Your task to perform on an android device: empty trash in the gmail app Image 0: 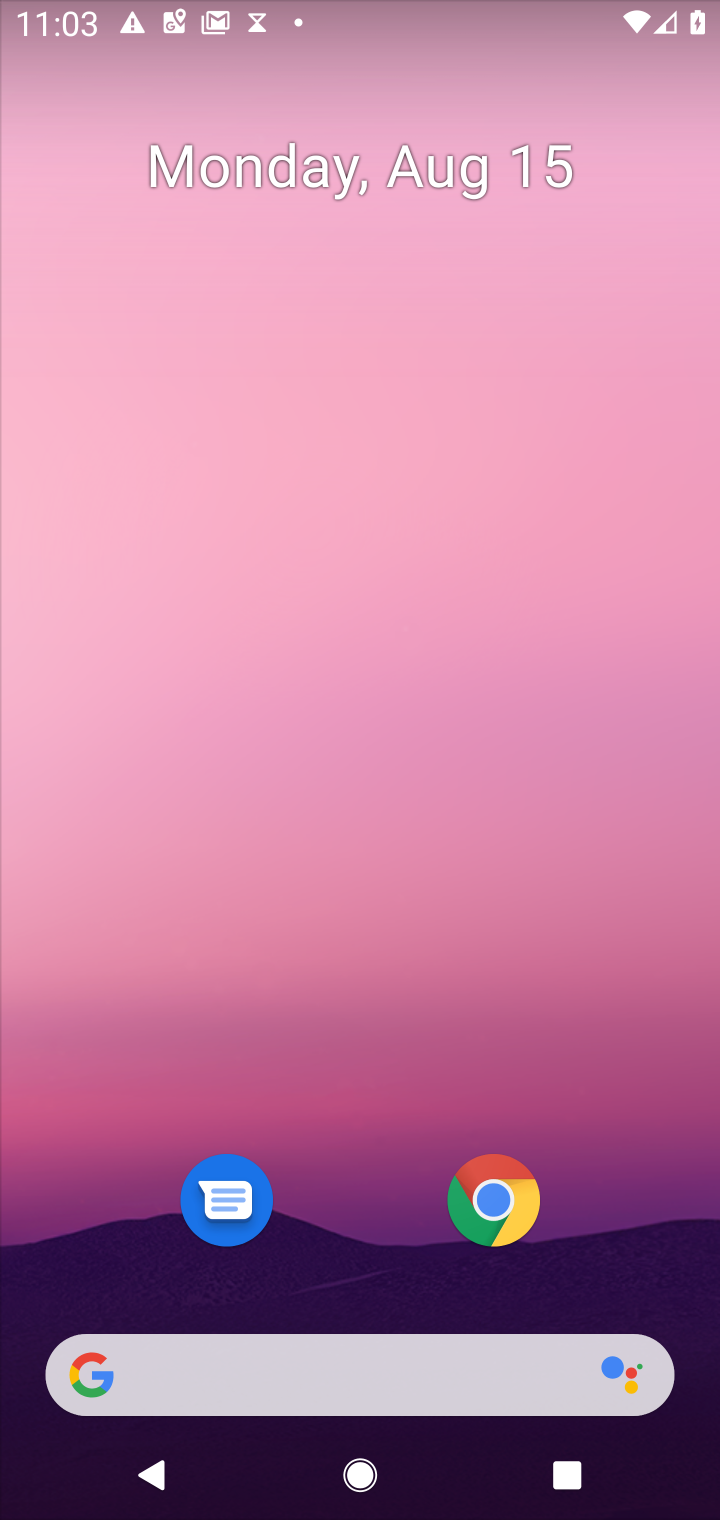
Step 0: drag from (346, 1138) to (352, 289)
Your task to perform on an android device: empty trash in the gmail app Image 1: 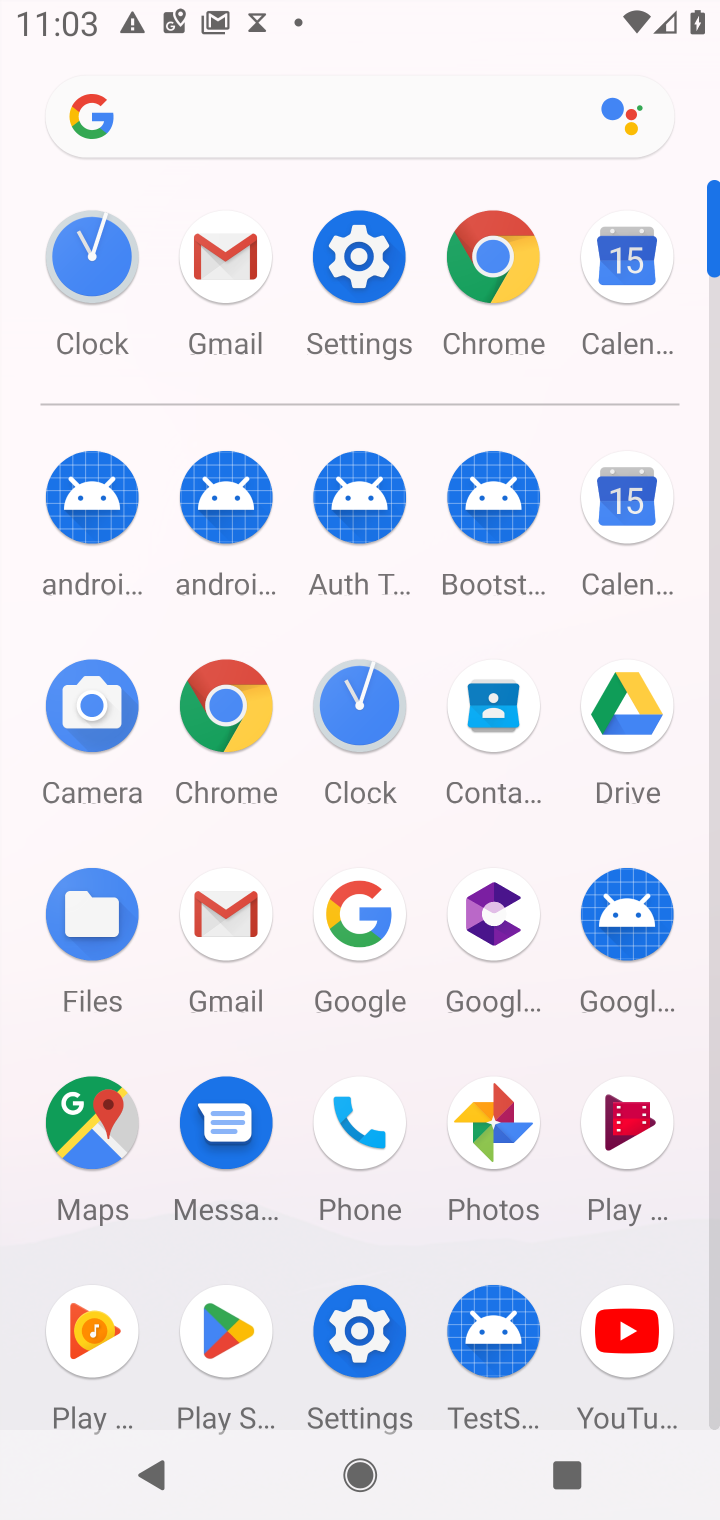
Step 1: click (227, 274)
Your task to perform on an android device: empty trash in the gmail app Image 2: 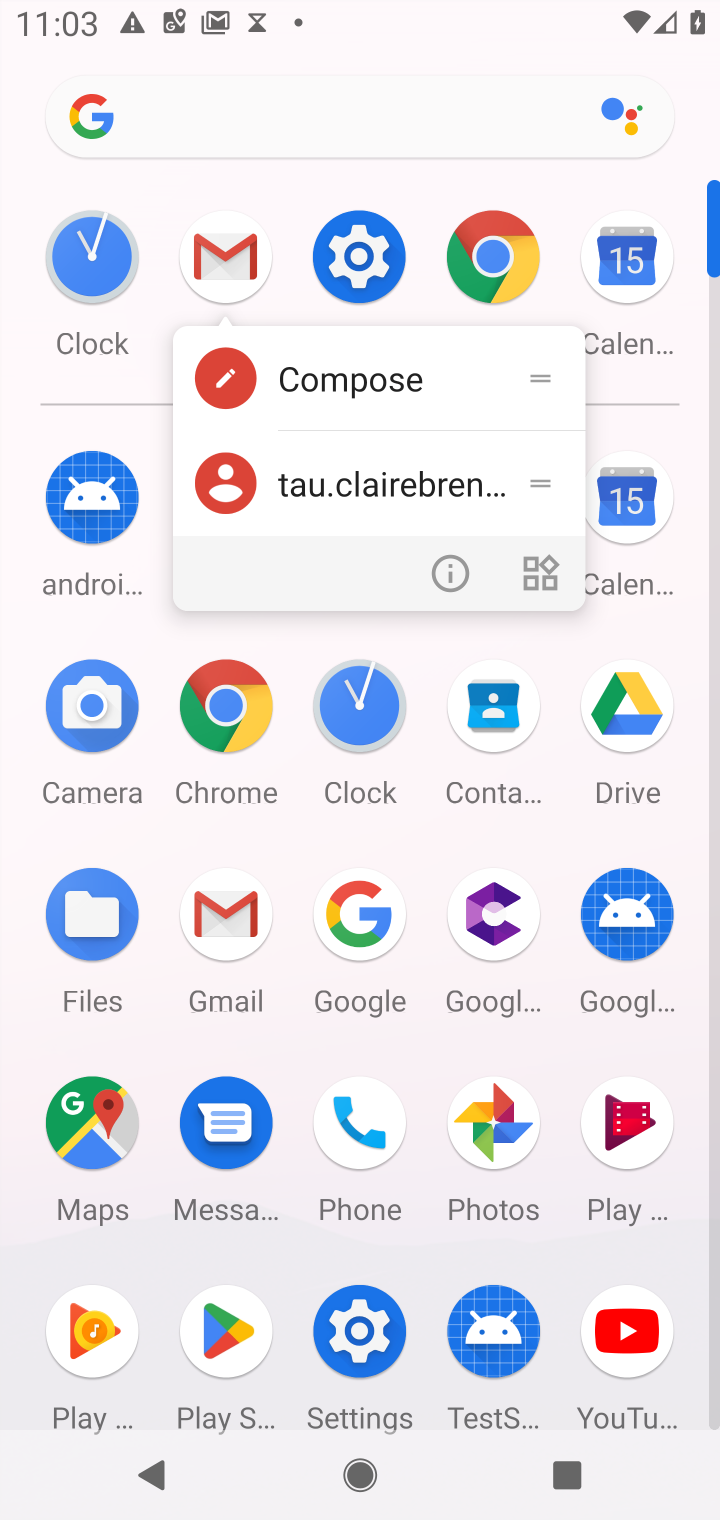
Step 2: click (224, 235)
Your task to perform on an android device: empty trash in the gmail app Image 3: 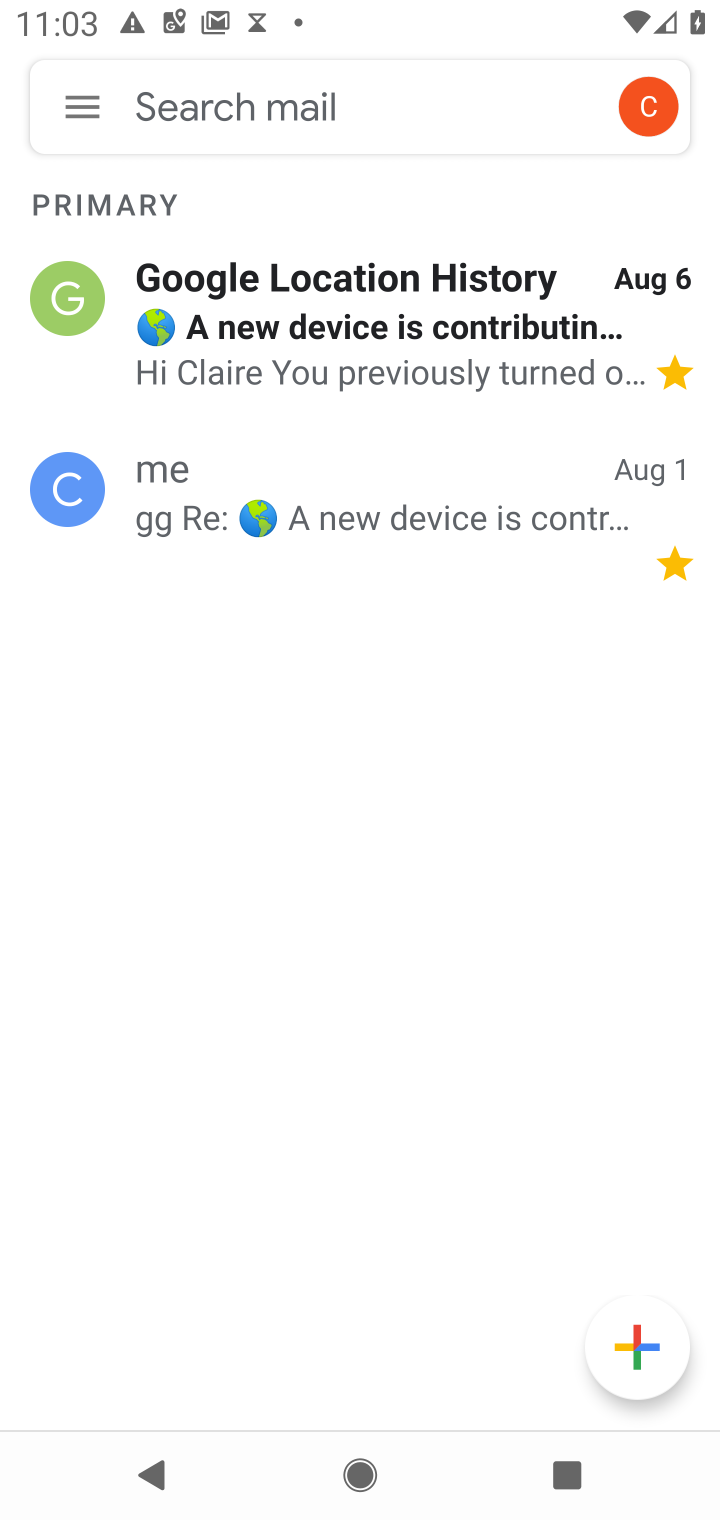
Step 3: click (131, 109)
Your task to perform on an android device: empty trash in the gmail app Image 4: 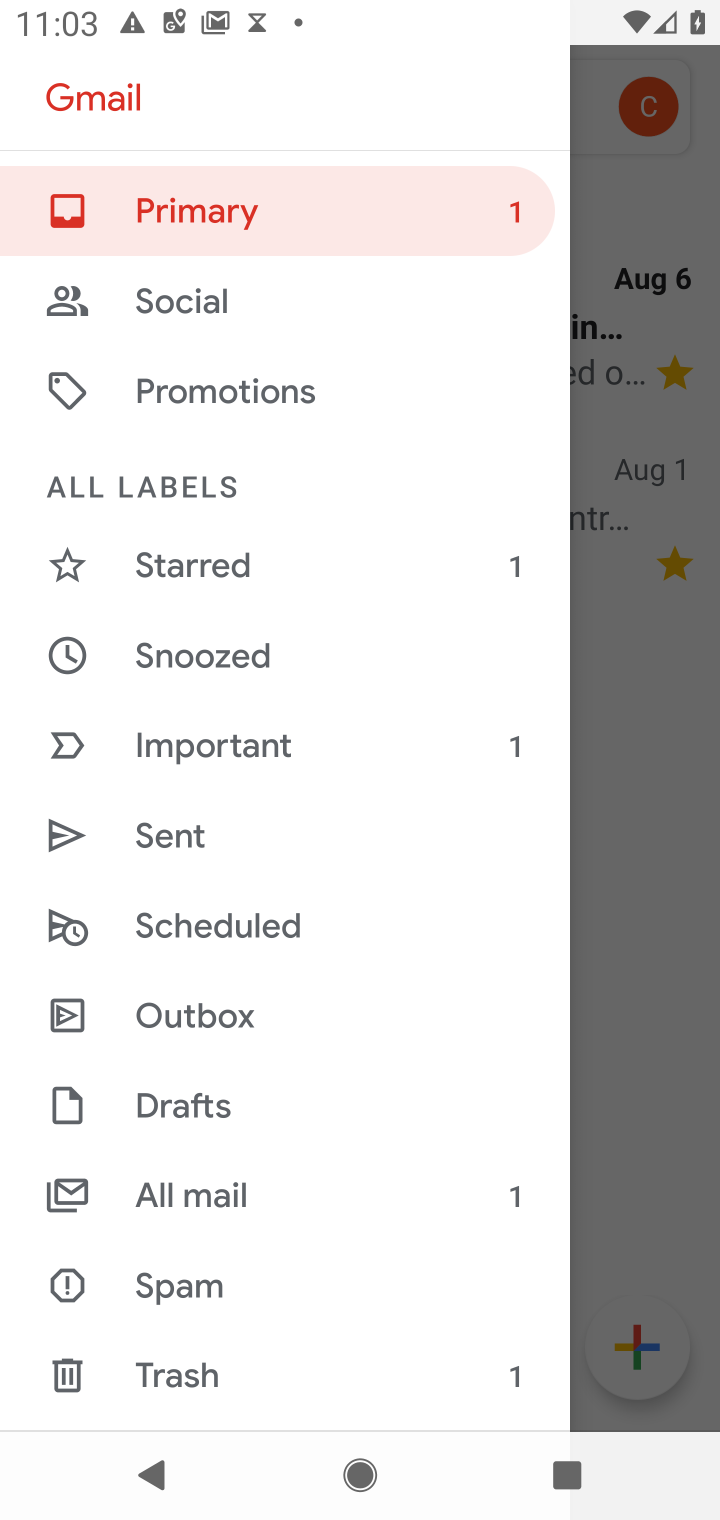
Step 4: drag from (271, 1104) to (285, 431)
Your task to perform on an android device: empty trash in the gmail app Image 5: 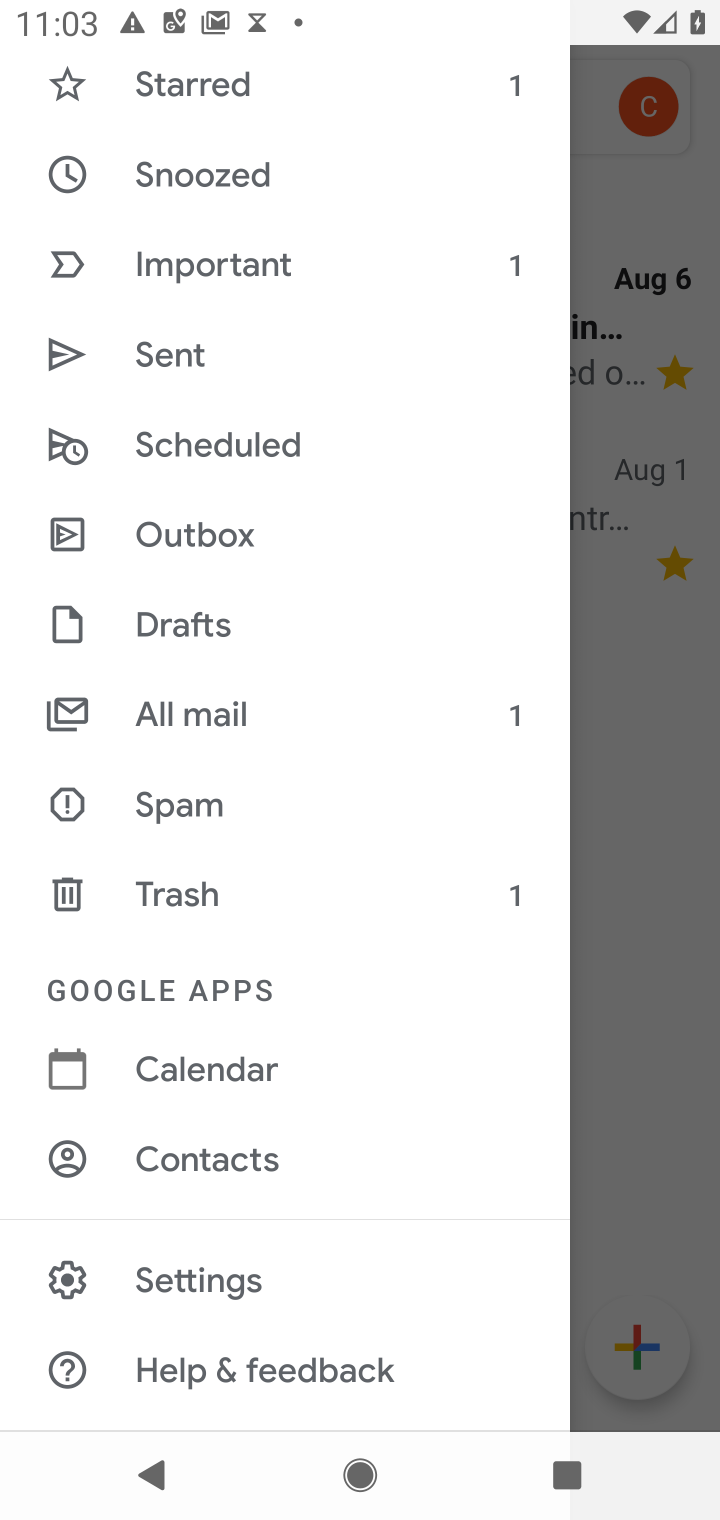
Step 5: click (210, 918)
Your task to perform on an android device: empty trash in the gmail app Image 6: 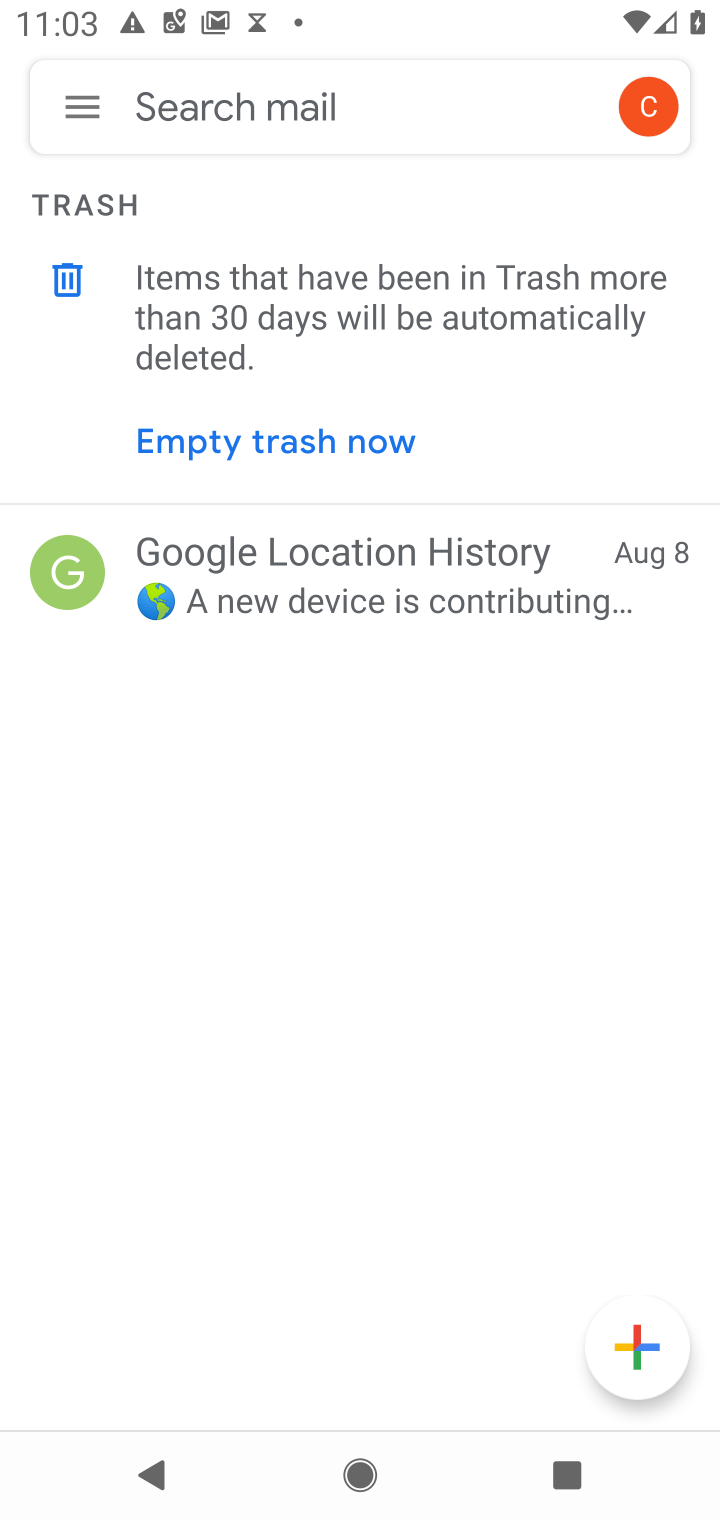
Step 6: click (252, 434)
Your task to perform on an android device: empty trash in the gmail app Image 7: 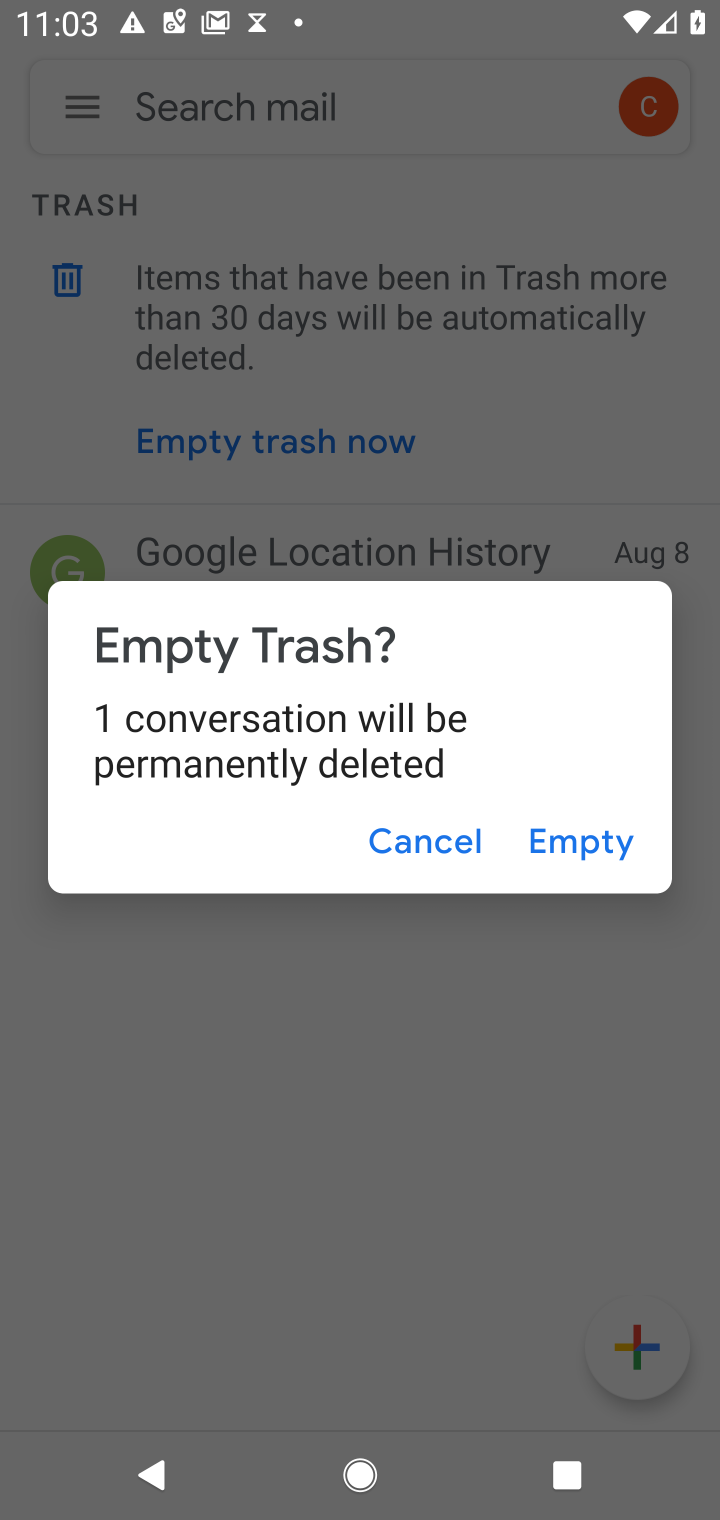
Step 7: click (587, 833)
Your task to perform on an android device: empty trash in the gmail app Image 8: 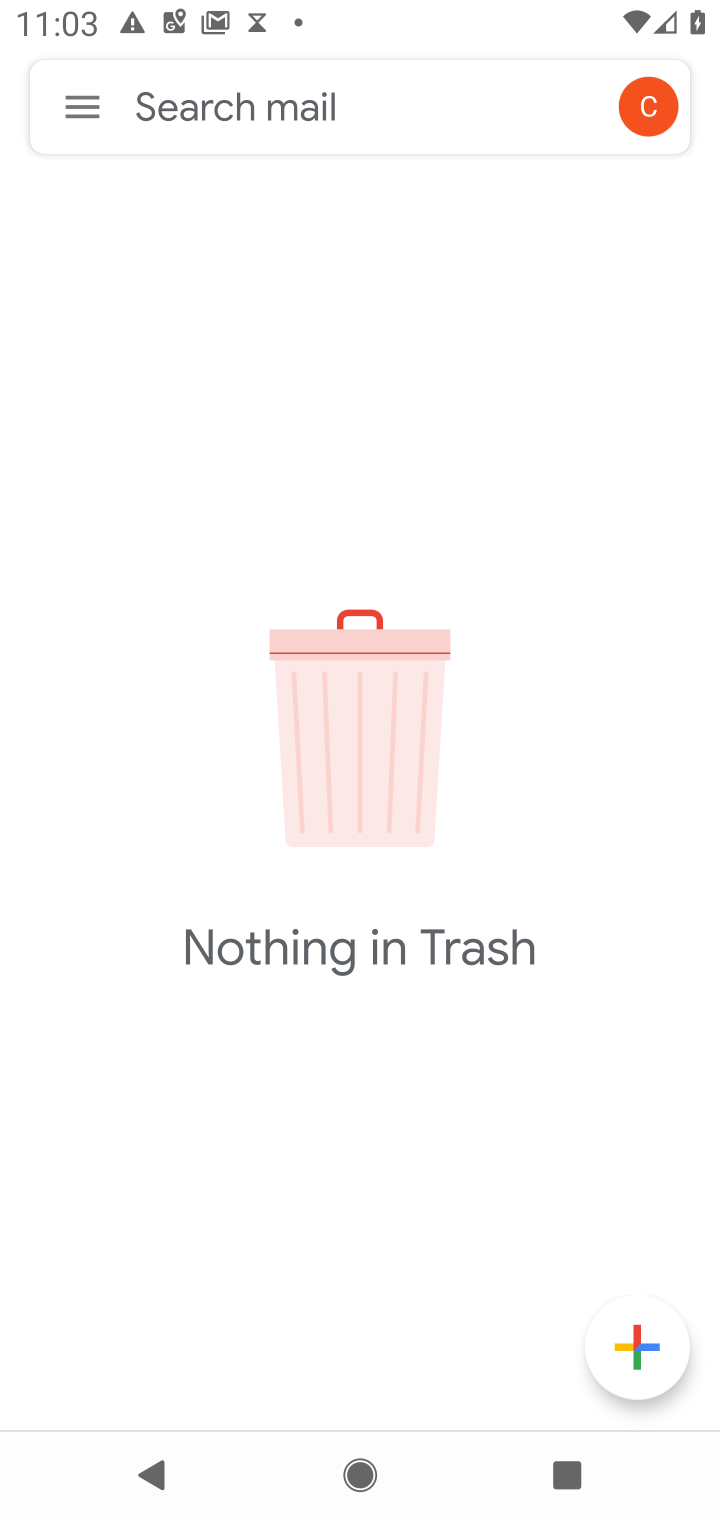
Step 8: task complete